Your task to perform on an android device: Open calendar and show me the second week of next month Image 0: 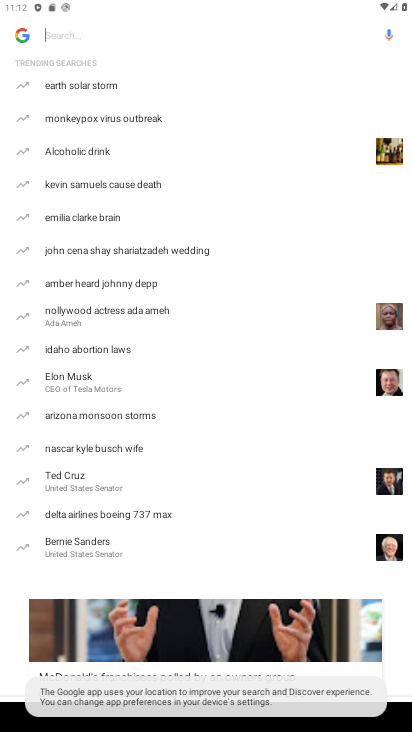
Step 0: press back button
Your task to perform on an android device: Open calendar and show me the second week of next month Image 1: 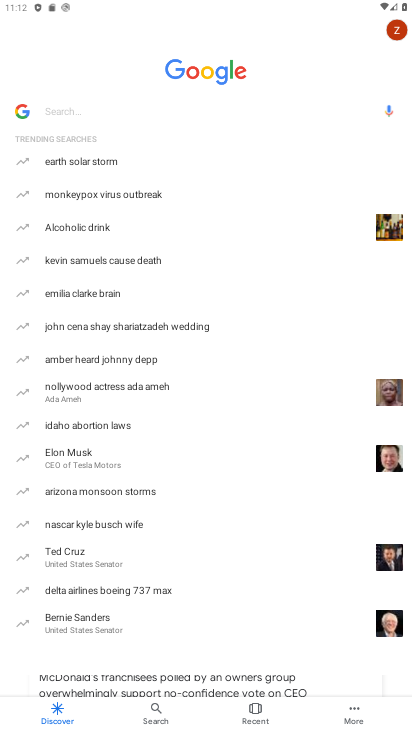
Step 1: press home button
Your task to perform on an android device: Open calendar and show me the second week of next month Image 2: 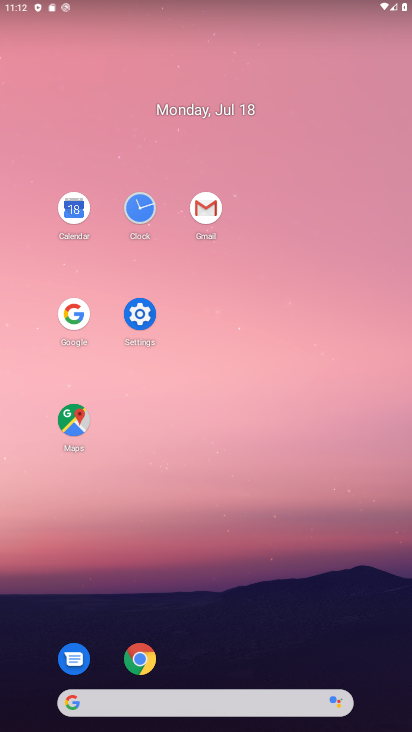
Step 2: click (71, 204)
Your task to perform on an android device: Open calendar and show me the second week of next month Image 3: 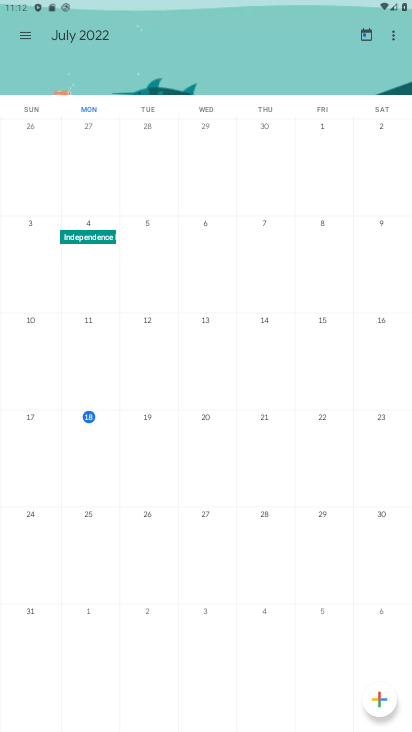
Step 3: click (97, 37)
Your task to perform on an android device: Open calendar and show me the second week of next month Image 4: 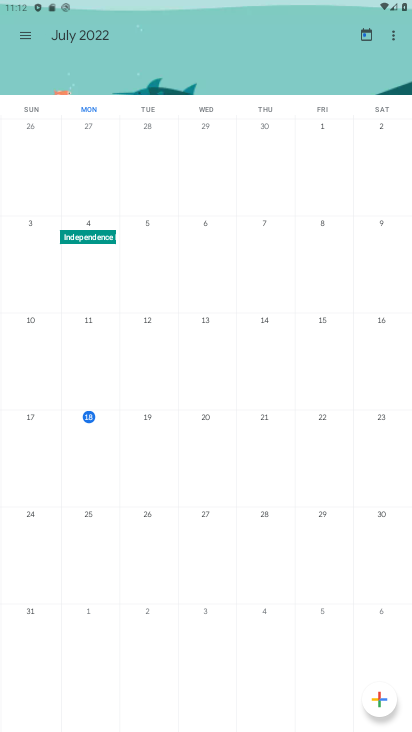
Step 4: click (106, 57)
Your task to perform on an android device: Open calendar and show me the second week of next month Image 5: 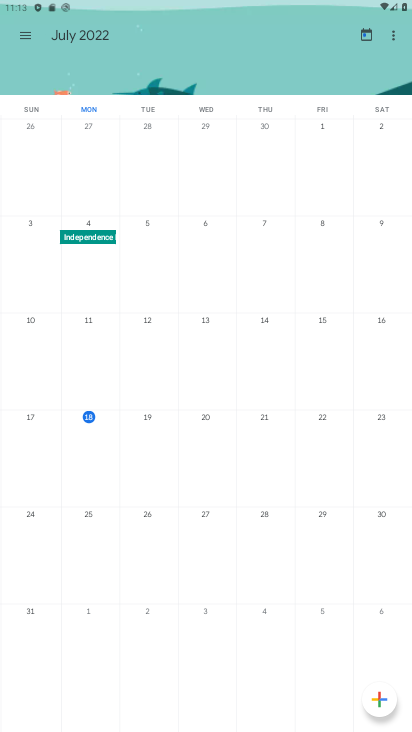
Step 5: click (88, 71)
Your task to perform on an android device: Open calendar and show me the second week of next month Image 6: 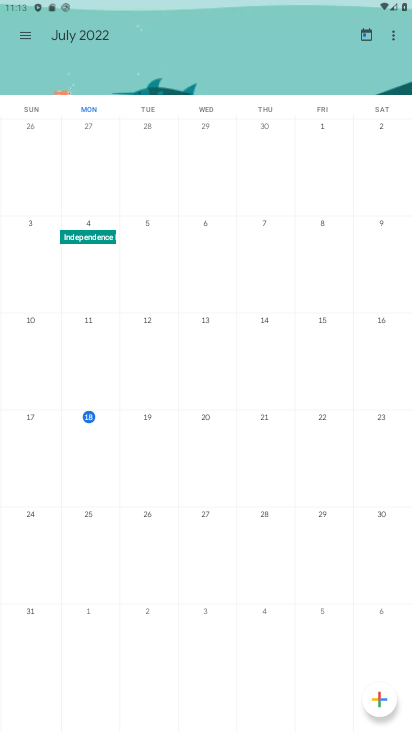
Step 6: click (15, 43)
Your task to perform on an android device: Open calendar and show me the second week of next month Image 7: 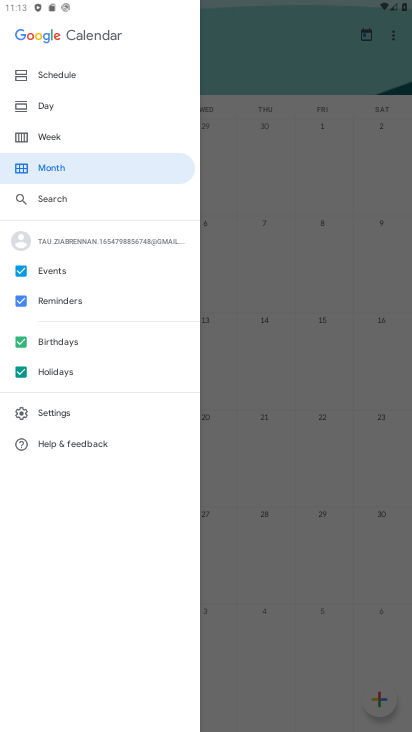
Step 7: click (90, 162)
Your task to perform on an android device: Open calendar and show me the second week of next month Image 8: 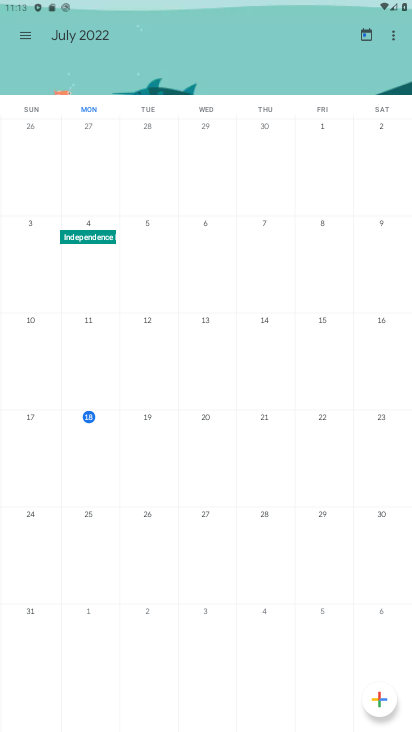
Step 8: drag from (371, 313) to (0, 9)
Your task to perform on an android device: Open calendar and show me the second week of next month Image 9: 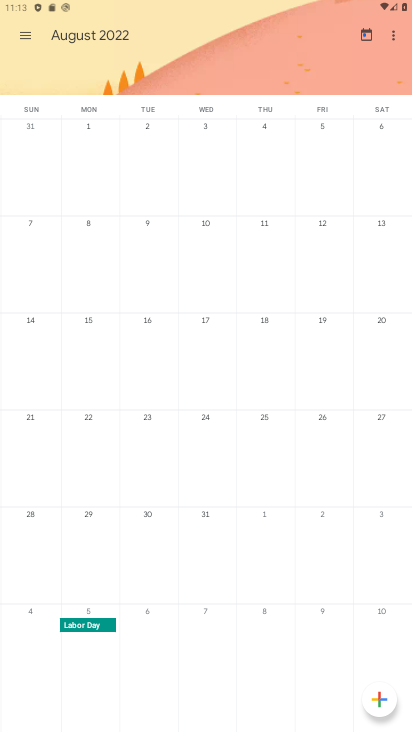
Step 9: click (36, 36)
Your task to perform on an android device: Open calendar and show me the second week of next month Image 10: 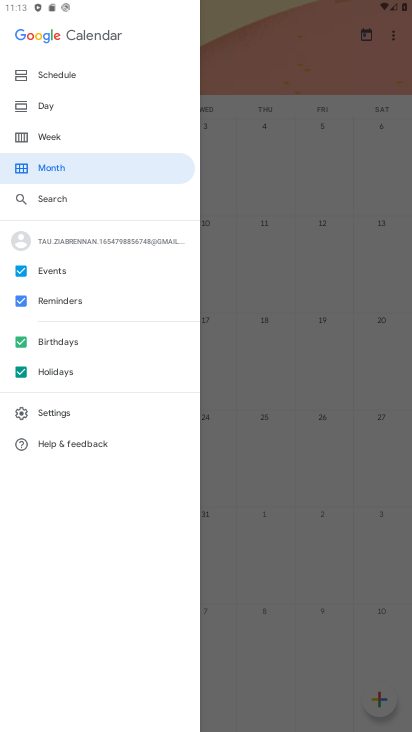
Step 10: click (67, 123)
Your task to perform on an android device: Open calendar and show me the second week of next month Image 11: 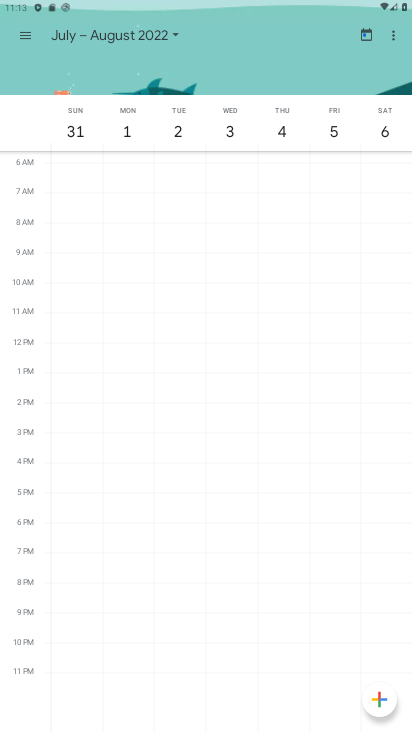
Step 11: task complete